Your task to perform on an android device: Open notification settings Image 0: 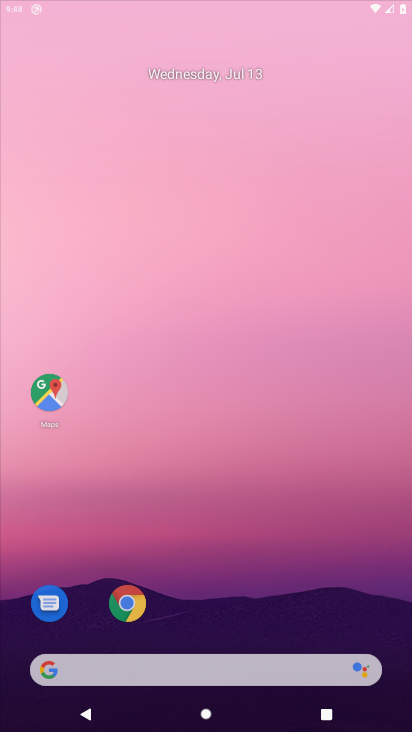
Step 0: click (127, 669)
Your task to perform on an android device: Open notification settings Image 1: 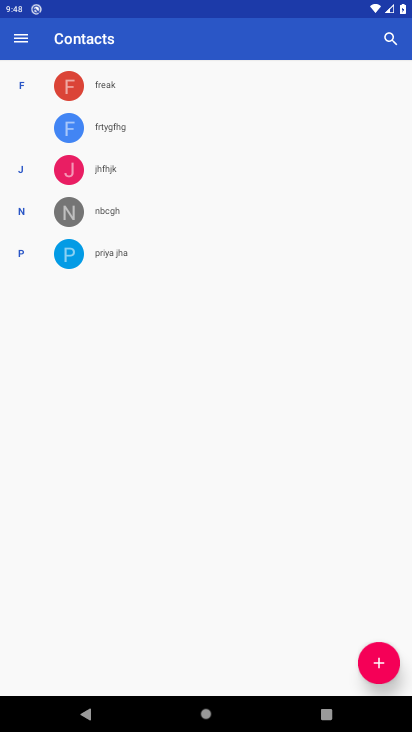
Step 1: press home button
Your task to perform on an android device: Open notification settings Image 2: 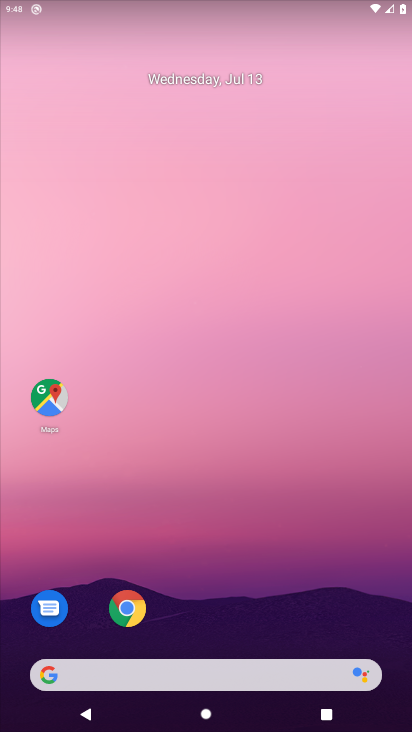
Step 2: drag from (23, 700) to (270, 191)
Your task to perform on an android device: Open notification settings Image 3: 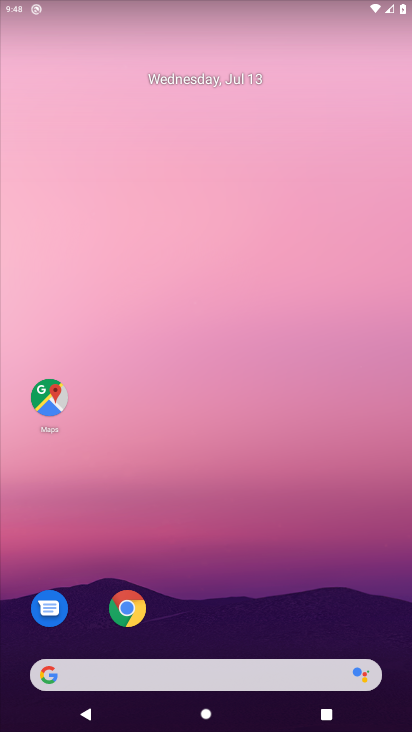
Step 3: drag from (43, 702) to (344, 100)
Your task to perform on an android device: Open notification settings Image 4: 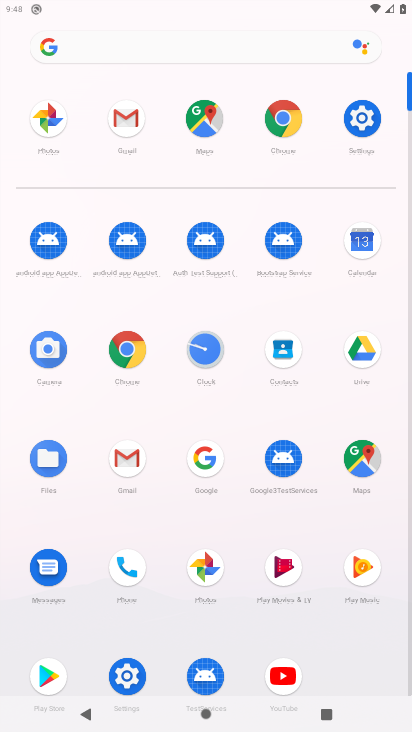
Step 4: click (120, 664)
Your task to perform on an android device: Open notification settings Image 5: 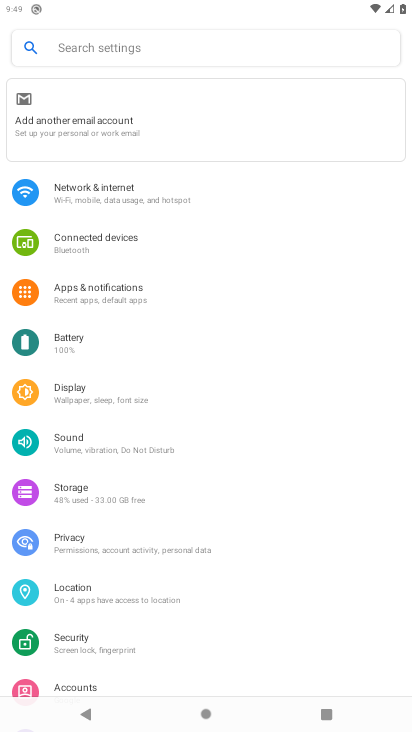
Step 5: click (127, 291)
Your task to perform on an android device: Open notification settings Image 6: 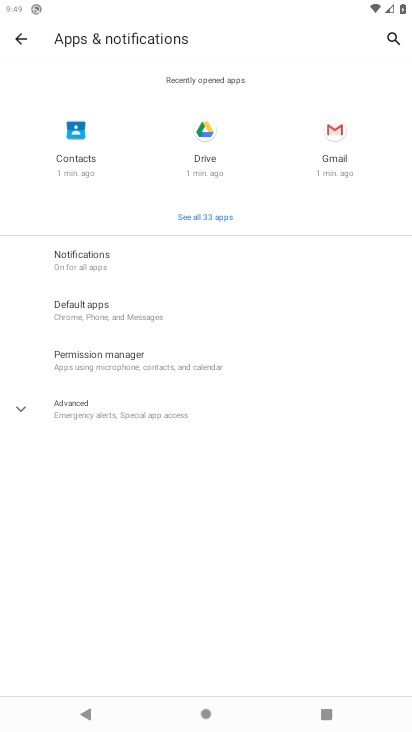
Step 6: click (88, 267)
Your task to perform on an android device: Open notification settings Image 7: 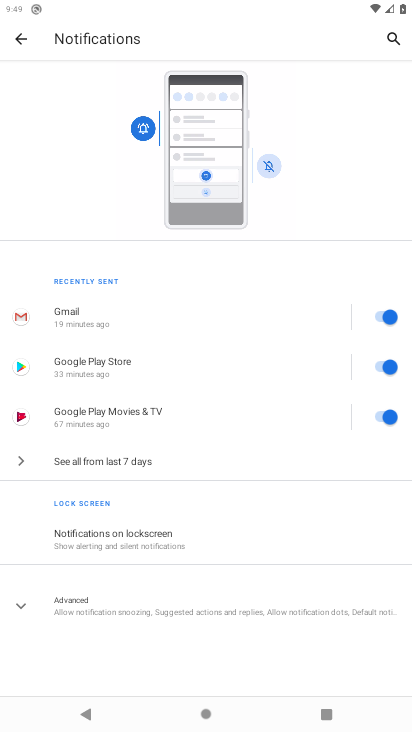
Step 7: task complete